Your task to perform on an android device: Open the map Image 0: 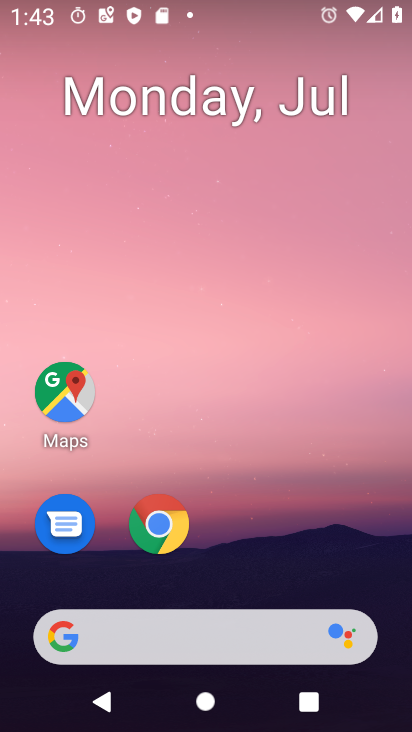
Step 0: click (70, 392)
Your task to perform on an android device: Open the map Image 1: 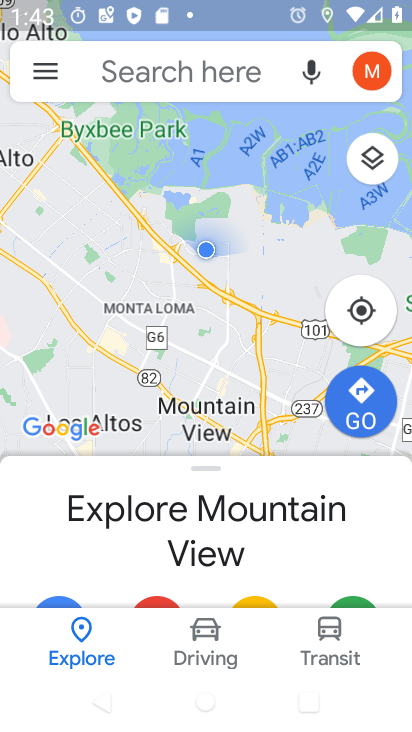
Step 1: task complete